Your task to perform on an android device: Open ESPN.com Image 0: 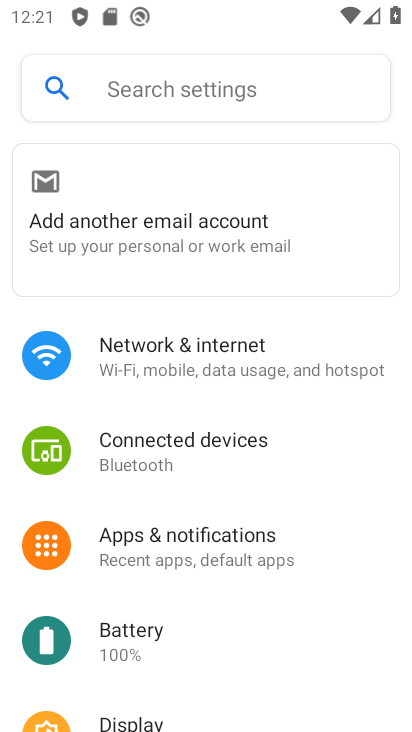
Step 0: press home button
Your task to perform on an android device: Open ESPN.com Image 1: 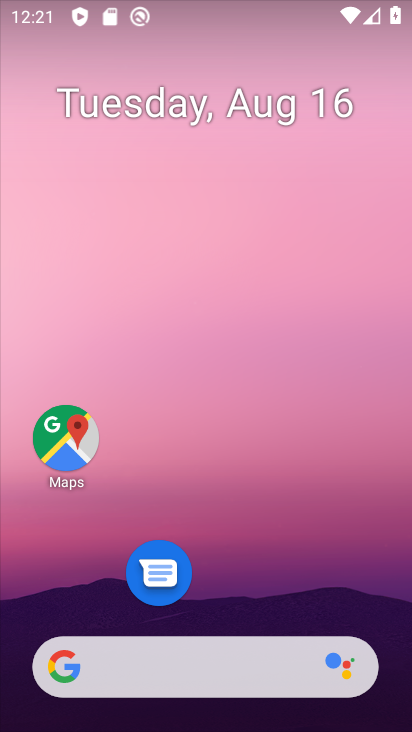
Step 1: drag from (216, 608) to (398, 95)
Your task to perform on an android device: Open ESPN.com Image 2: 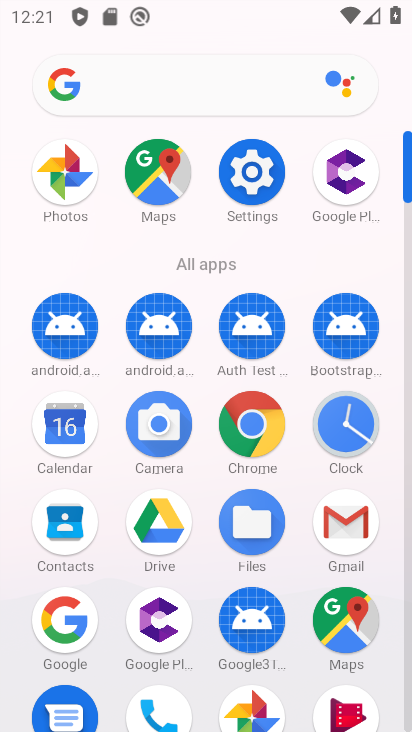
Step 2: click (254, 404)
Your task to perform on an android device: Open ESPN.com Image 3: 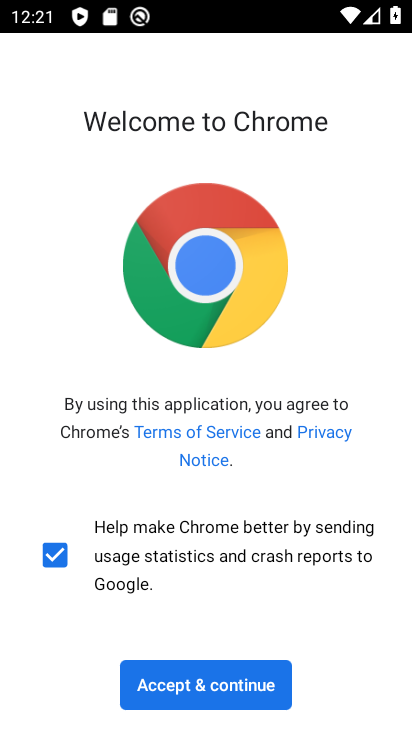
Step 3: click (198, 670)
Your task to perform on an android device: Open ESPN.com Image 4: 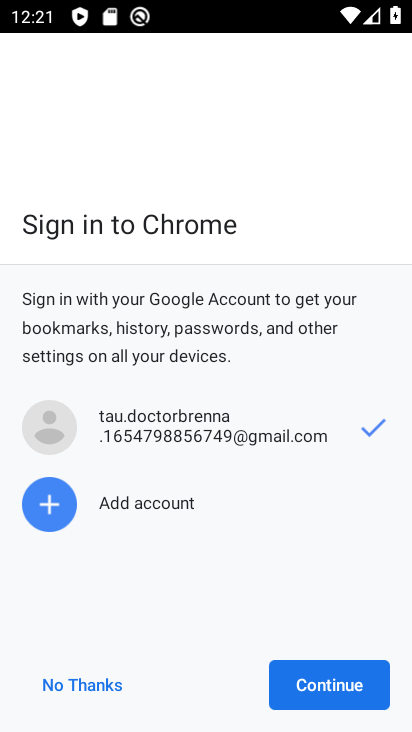
Step 4: click (337, 684)
Your task to perform on an android device: Open ESPN.com Image 5: 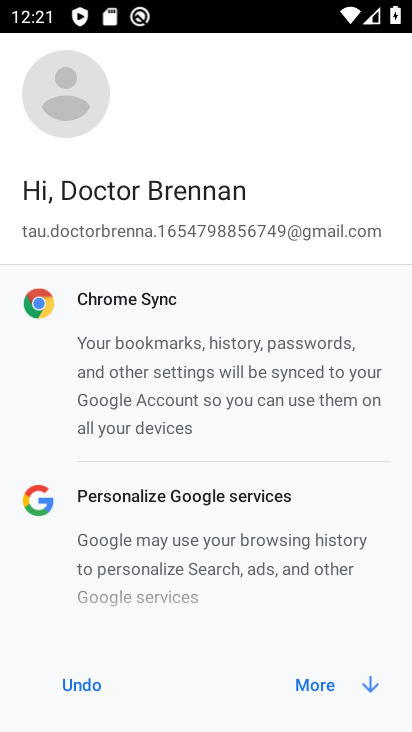
Step 5: click (324, 677)
Your task to perform on an android device: Open ESPN.com Image 6: 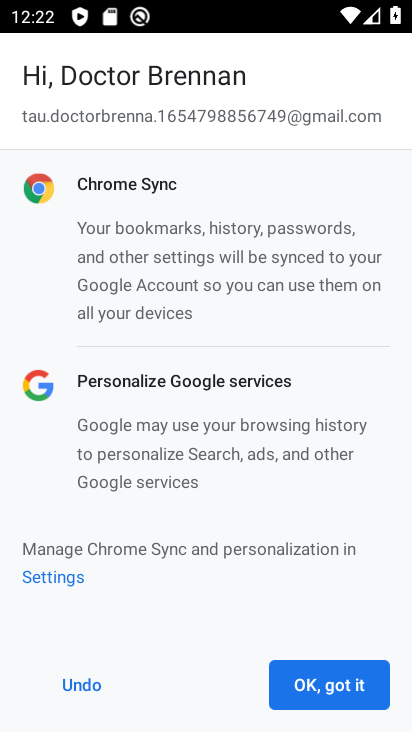
Step 6: click (324, 677)
Your task to perform on an android device: Open ESPN.com Image 7: 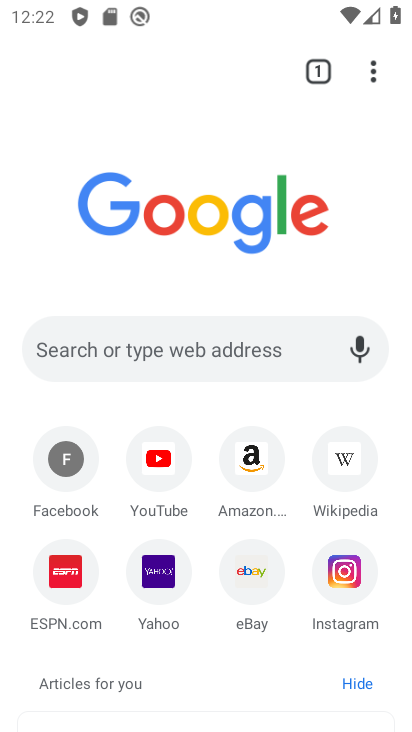
Step 7: click (72, 594)
Your task to perform on an android device: Open ESPN.com Image 8: 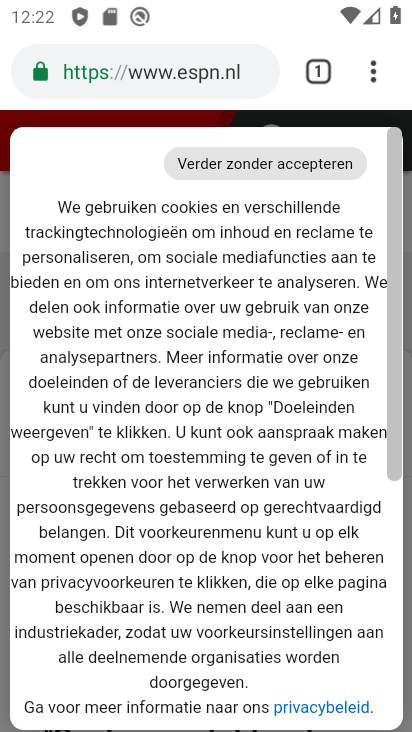
Step 8: task complete